Your task to perform on an android device: Open settings Image 0: 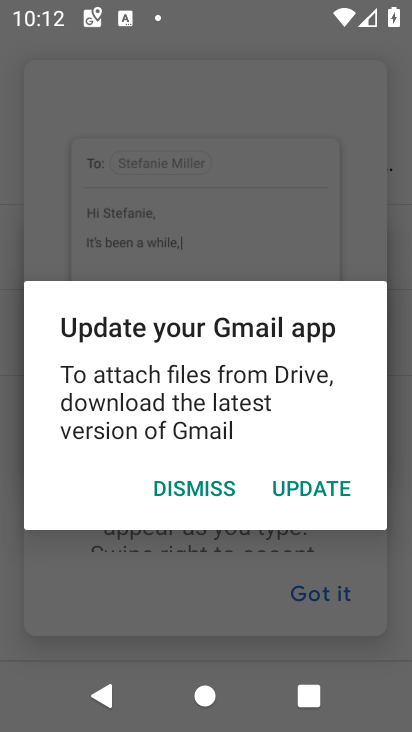
Step 0: press home button
Your task to perform on an android device: Open settings Image 1: 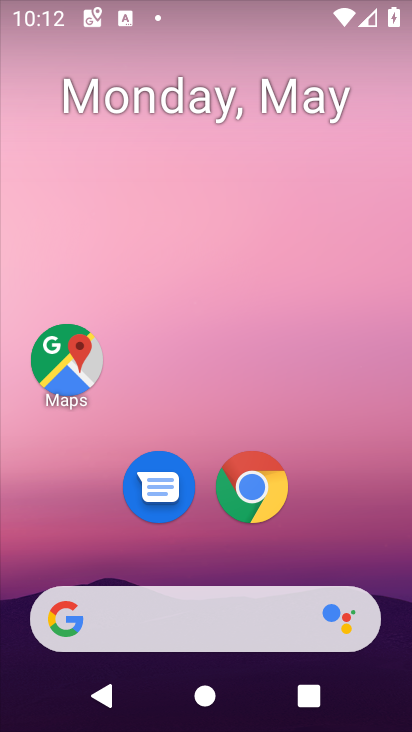
Step 1: drag from (206, 558) to (266, 86)
Your task to perform on an android device: Open settings Image 2: 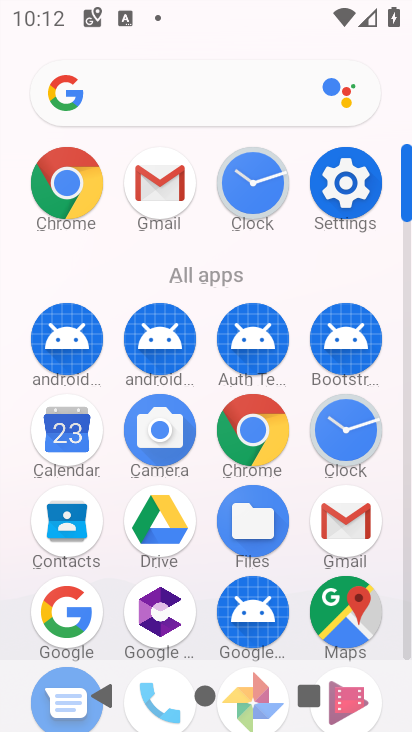
Step 2: click (348, 192)
Your task to perform on an android device: Open settings Image 3: 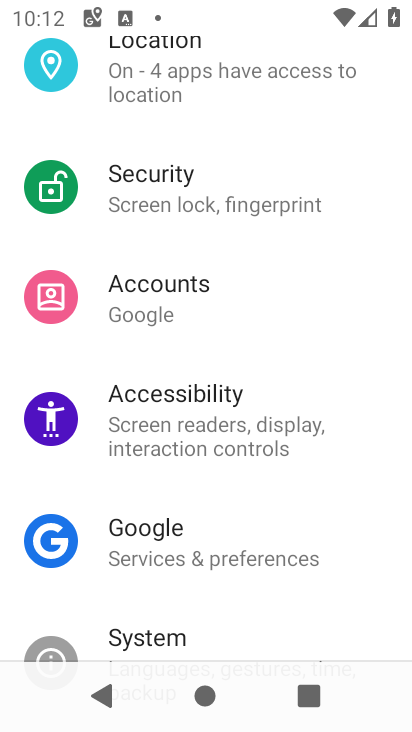
Step 3: task complete